Your task to perform on an android device: What's the weather? Image 0: 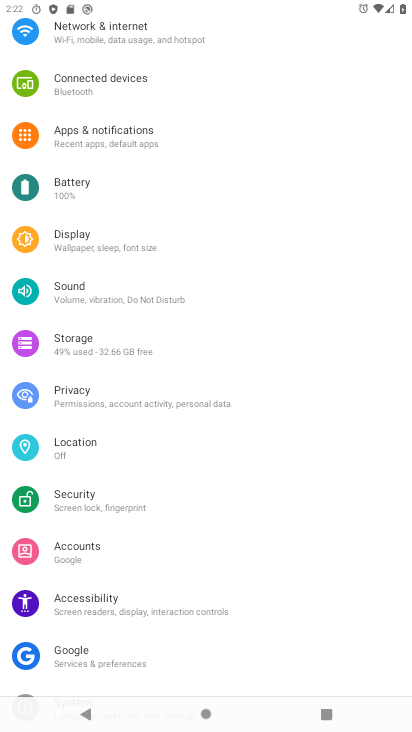
Step 0: press home button
Your task to perform on an android device: What's the weather? Image 1: 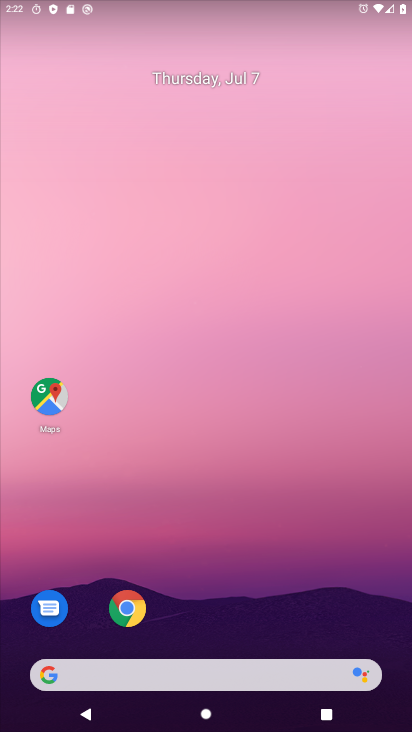
Step 1: drag from (242, 714) to (237, 60)
Your task to perform on an android device: What's the weather? Image 2: 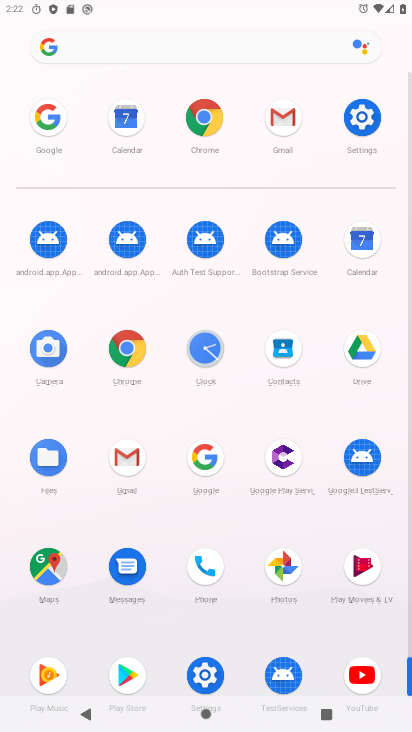
Step 2: click (204, 458)
Your task to perform on an android device: What's the weather? Image 3: 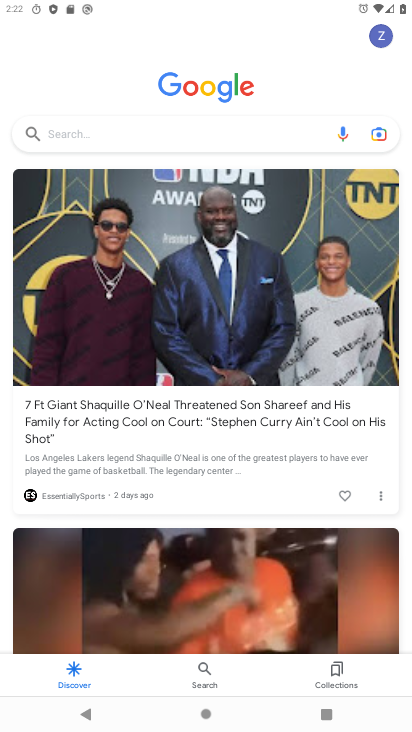
Step 3: click (252, 129)
Your task to perform on an android device: What's the weather? Image 4: 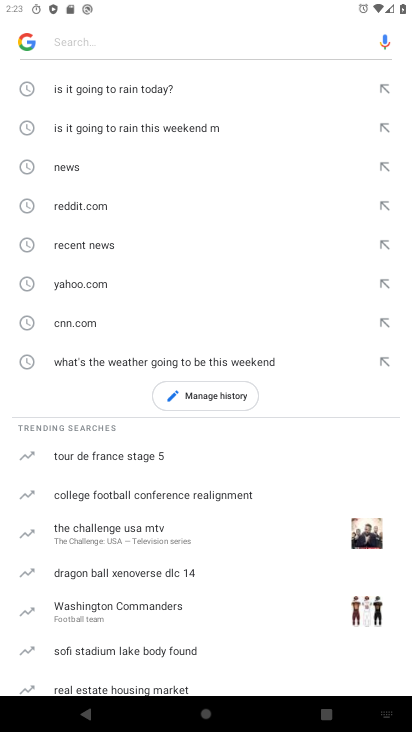
Step 4: type "Weather"
Your task to perform on an android device: What's the weather? Image 5: 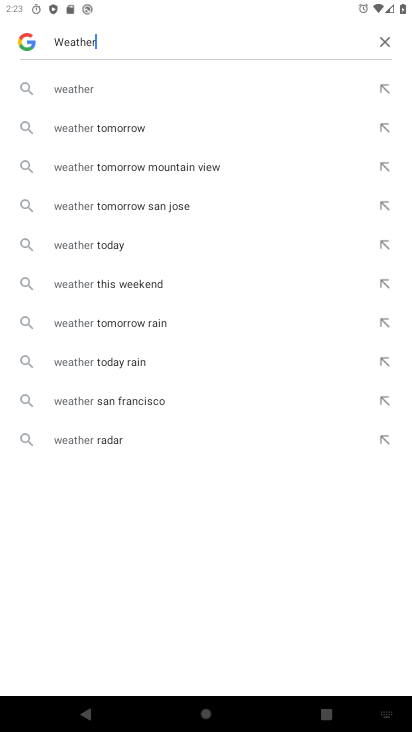
Step 5: click (66, 86)
Your task to perform on an android device: What's the weather? Image 6: 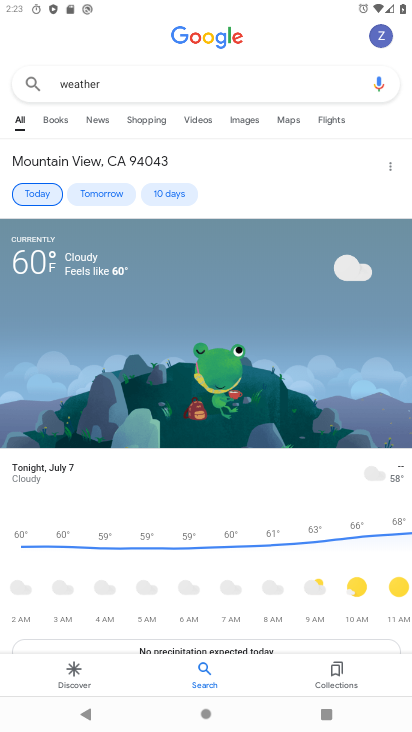
Step 6: click (34, 188)
Your task to perform on an android device: What's the weather? Image 7: 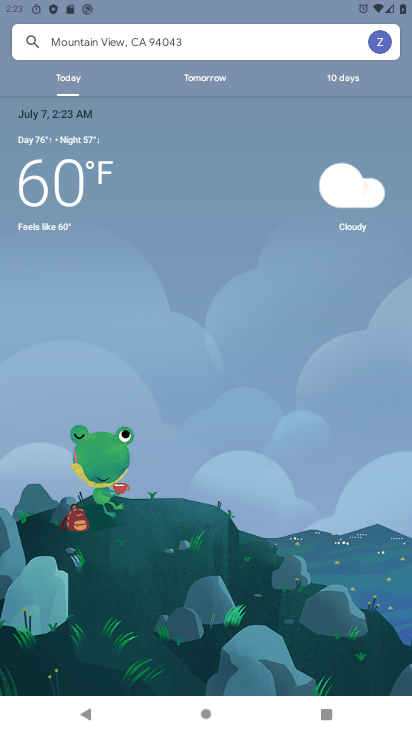
Step 7: task complete